Your task to perform on an android device: Go to sound settings Image 0: 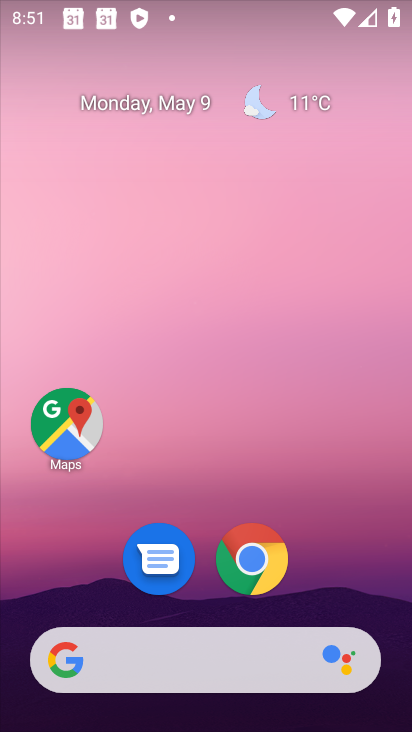
Step 0: drag from (341, 573) to (283, 67)
Your task to perform on an android device: Go to sound settings Image 1: 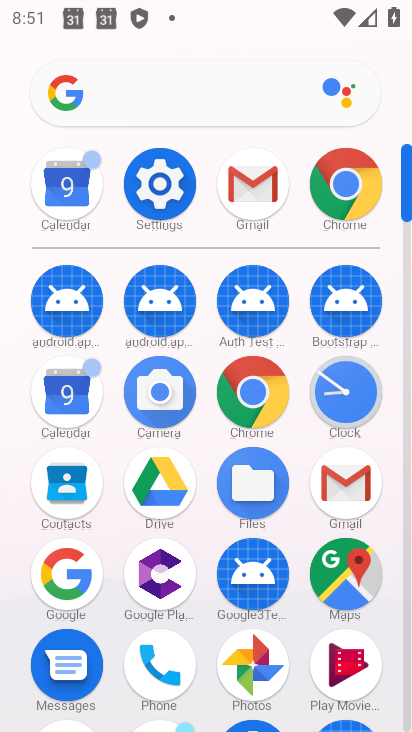
Step 1: click (164, 180)
Your task to perform on an android device: Go to sound settings Image 2: 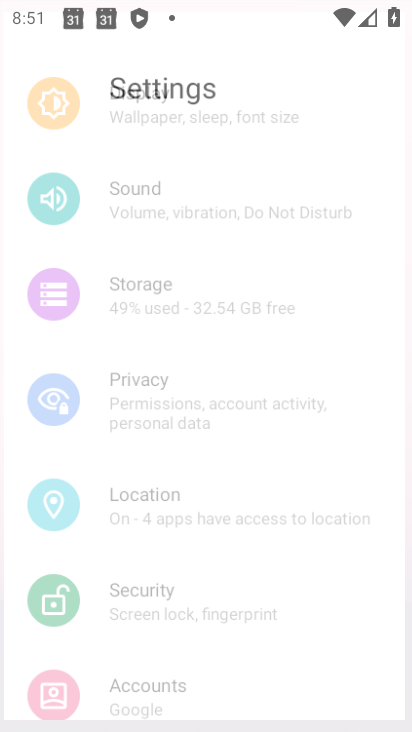
Step 2: click (164, 180)
Your task to perform on an android device: Go to sound settings Image 3: 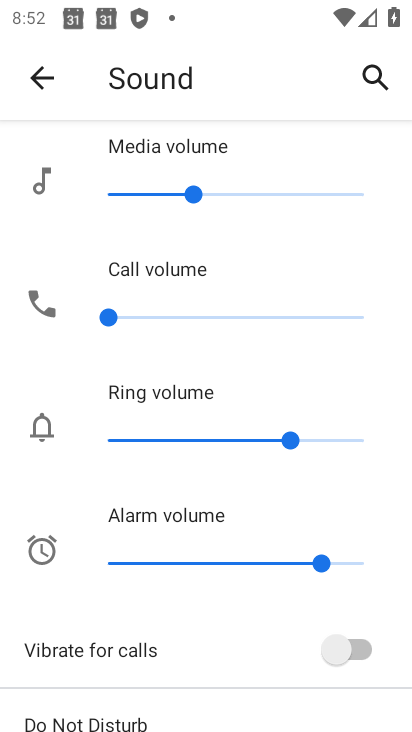
Step 3: click (40, 74)
Your task to perform on an android device: Go to sound settings Image 4: 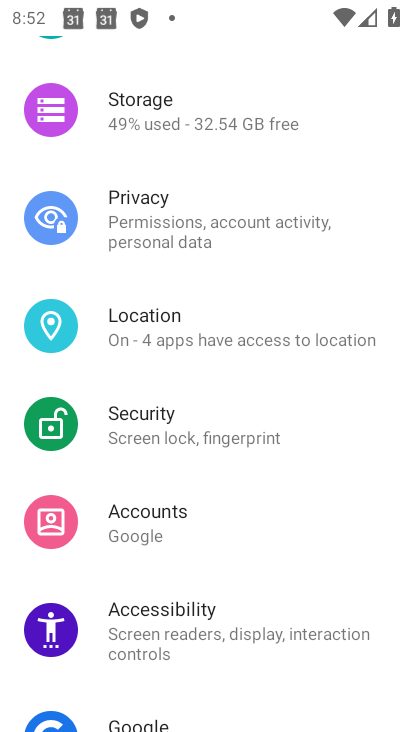
Step 4: task complete